Your task to perform on an android device: open app "Venmo" Image 0: 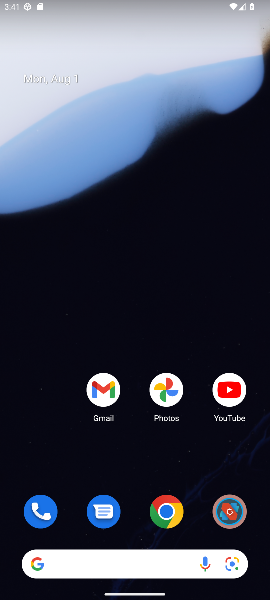
Step 0: drag from (128, 499) to (201, 18)
Your task to perform on an android device: open app "Venmo" Image 1: 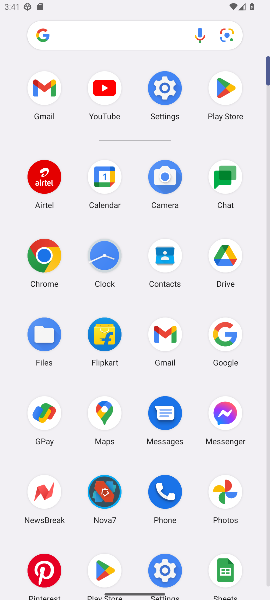
Step 1: click (226, 95)
Your task to perform on an android device: open app "Venmo" Image 2: 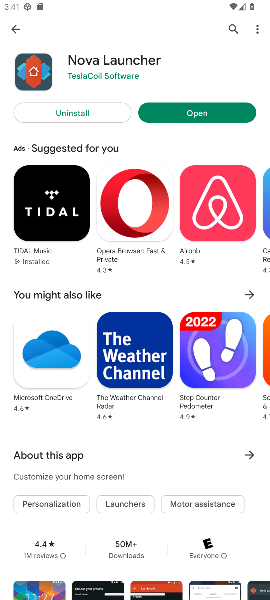
Step 2: click (14, 29)
Your task to perform on an android device: open app "Venmo" Image 3: 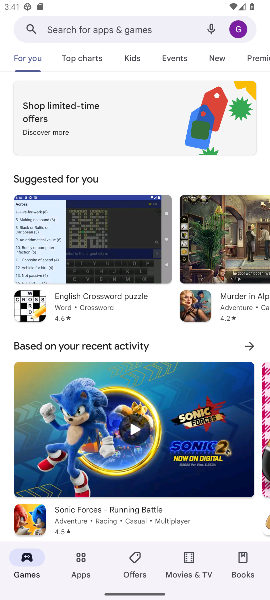
Step 3: click (147, 34)
Your task to perform on an android device: open app "Venmo" Image 4: 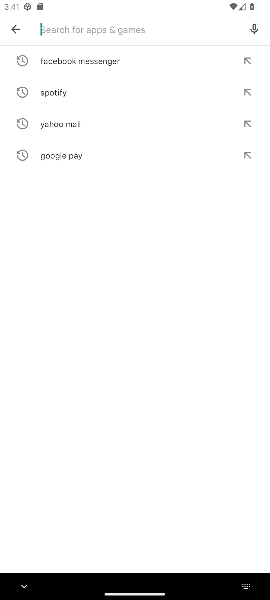
Step 4: type "Venmo"
Your task to perform on an android device: open app "Venmo" Image 5: 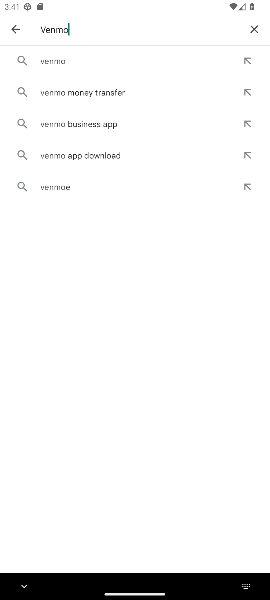
Step 5: click (51, 61)
Your task to perform on an android device: open app "Venmo" Image 6: 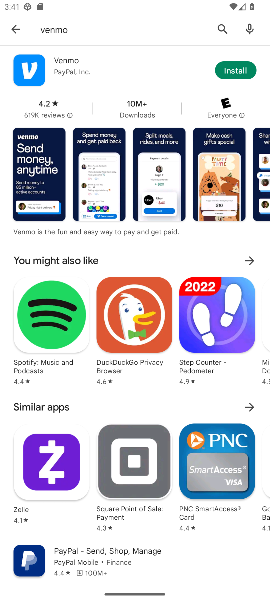
Step 6: click (239, 67)
Your task to perform on an android device: open app "Venmo" Image 7: 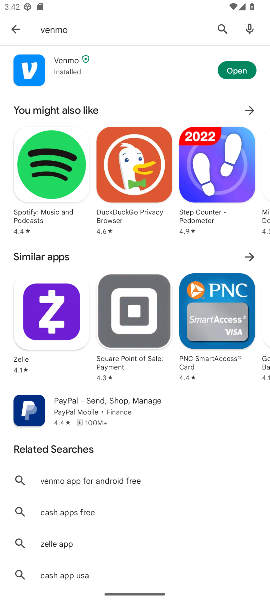
Step 7: click (234, 67)
Your task to perform on an android device: open app "Venmo" Image 8: 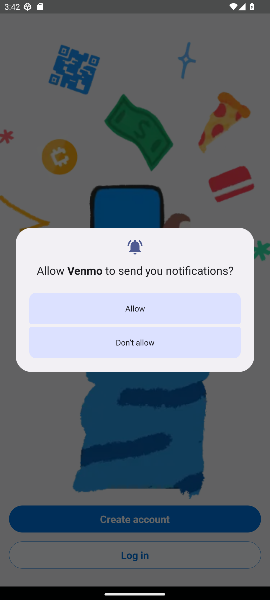
Step 8: click (137, 299)
Your task to perform on an android device: open app "Venmo" Image 9: 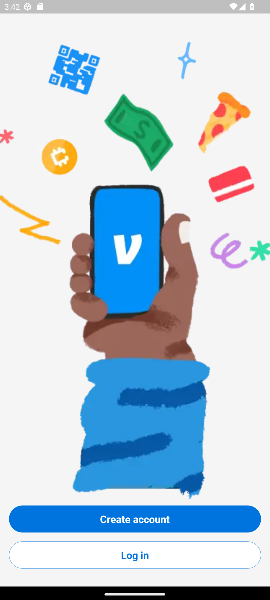
Step 9: task complete